Your task to perform on an android device: Go to Google maps Image 0: 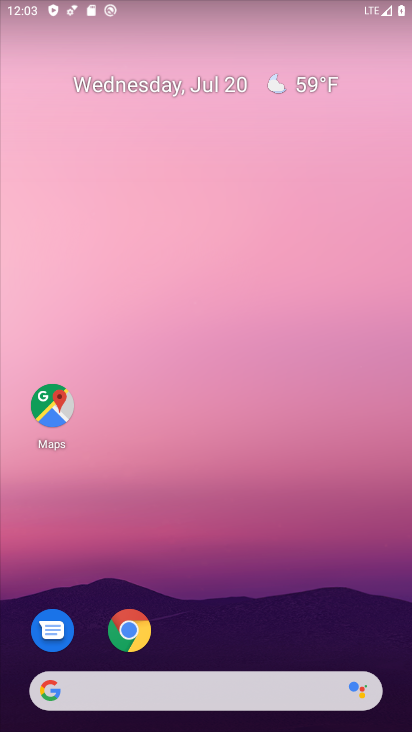
Step 0: drag from (154, 674) to (202, 202)
Your task to perform on an android device: Go to Google maps Image 1: 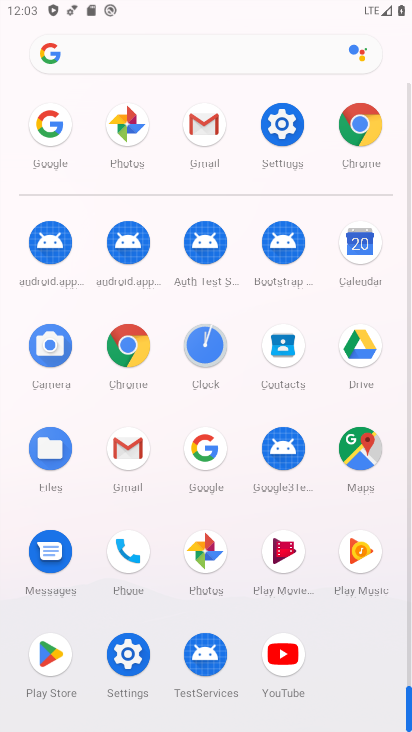
Step 1: drag from (218, 458) to (239, 321)
Your task to perform on an android device: Go to Google maps Image 2: 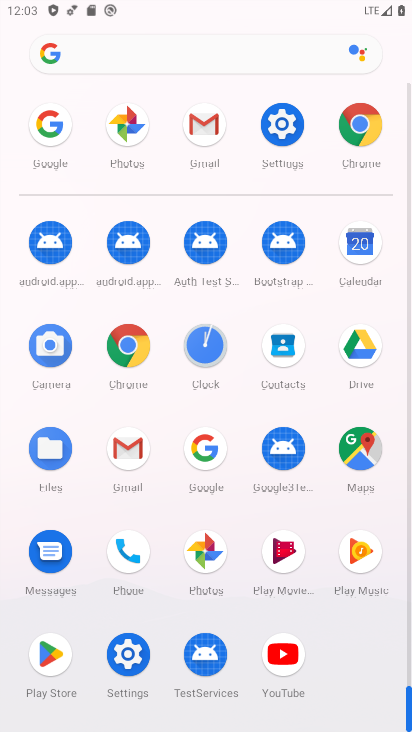
Step 2: click (369, 460)
Your task to perform on an android device: Go to Google maps Image 3: 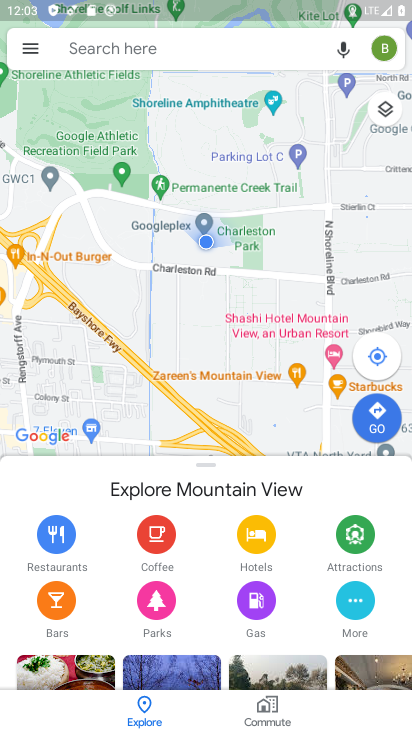
Step 3: task complete